Your task to perform on an android device: read, delete, or share a saved page in the chrome app Image 0: 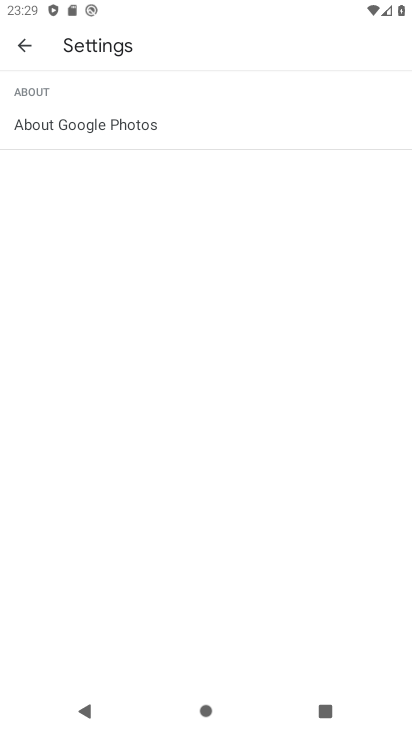
Step 0: press home button
Your task to perform on an android device: read, delete, or share a saved page in the chrome app Image 1: 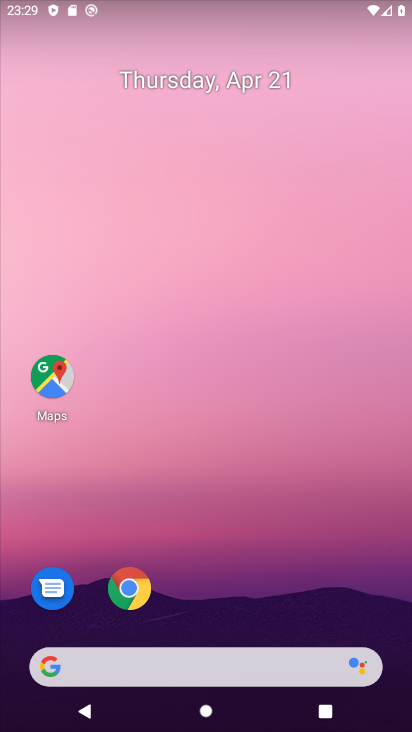
Step 1: click (134, 601)
Your task to perform on an android device: read, delete, or share a saved page in the chrome app Image 2: 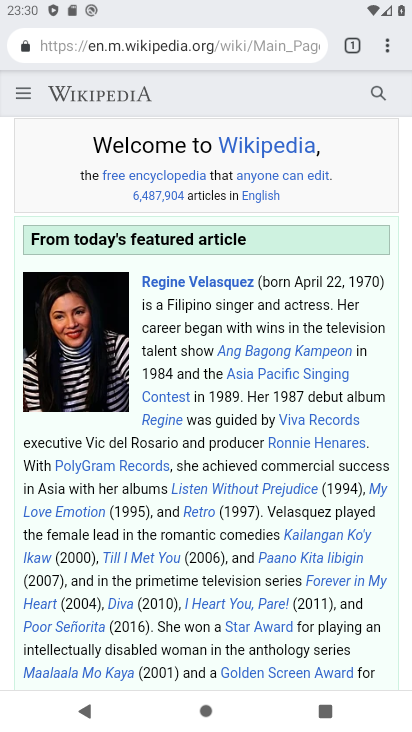
Step 2: click (390, 44)
Your task to perform on an android device: read, delete, or share a saved page in the chrome app Image 3: 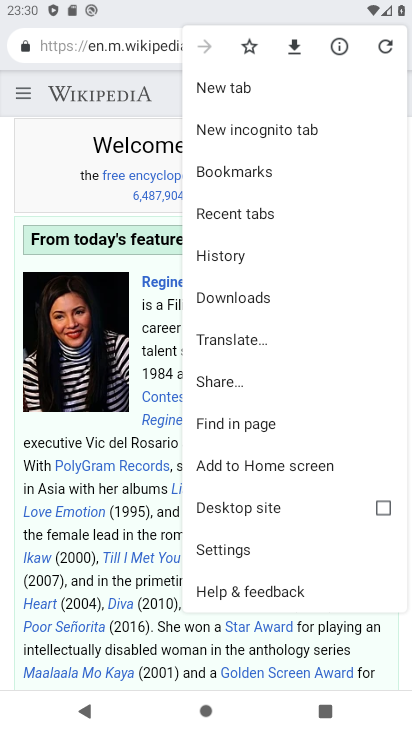
Step 3: click (237, 302)
Your task to perform on an android device: read, delete, or share a saved page in the chrome app Image 4: 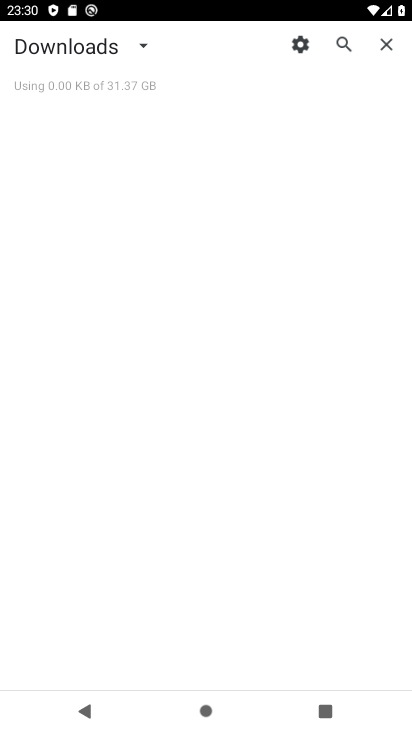
Step 4: click (118, 45)
Your task to perform on an android device: read, delete, or share a saved page in the chrome app Image 5: 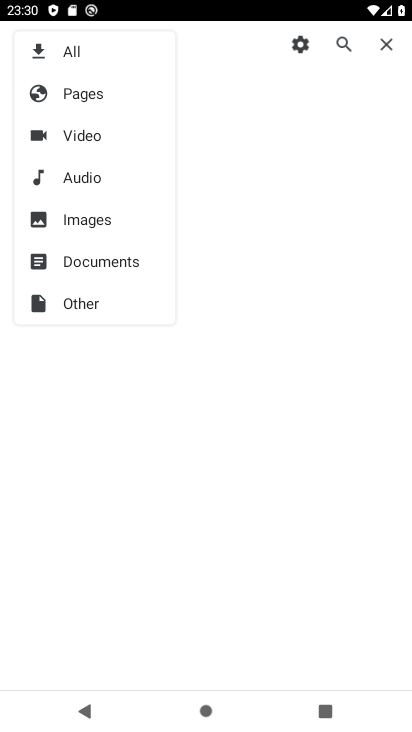
Step 5: click (83, 94)
Your task to perform on an android device: read, delete, or share a saved page in the chrome app Image 6: 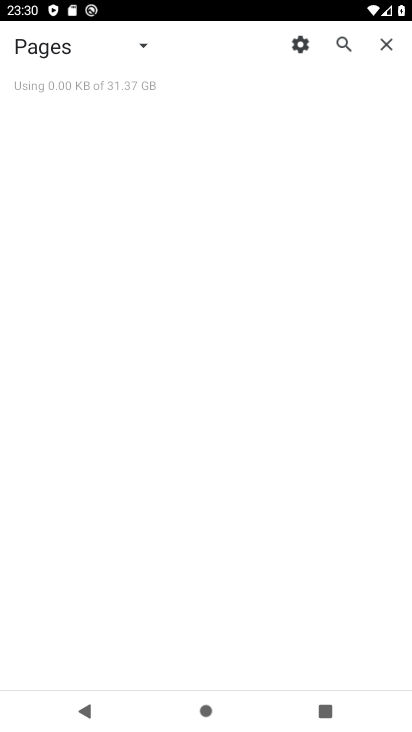
Step 6: task complete